Your task to perform on an android device: Go to network settings Image 0: 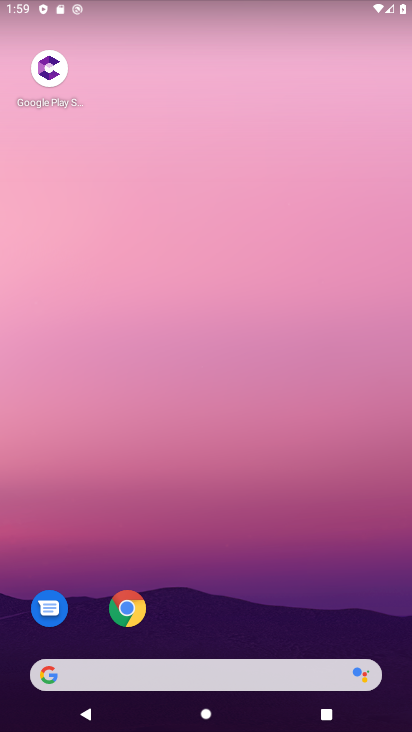
Step 0: drag from (260, 621) to (252, 185)
Your task to perform on an android device: Go to network settings Image 1: 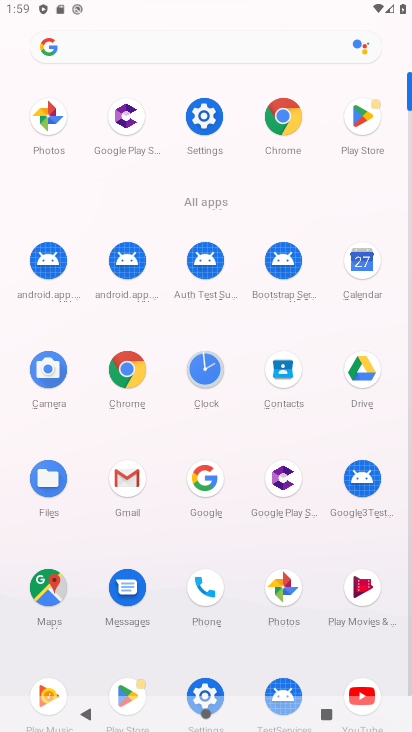
Step 1: click (211, 122)
Your task to perform on an android device: Go to network settings Image 2: 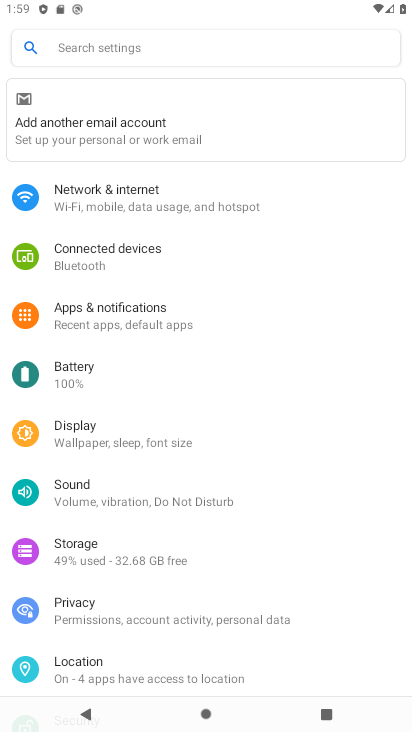
Step 2: click (117, 197)
Your task to perform on an android device: Go to network settings Image 3: 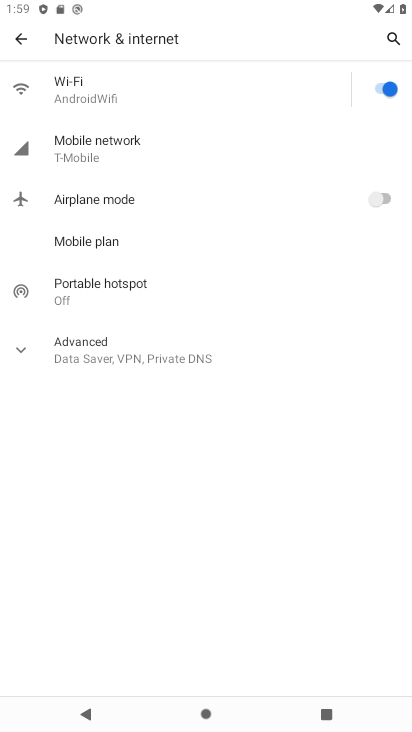
Step 3: task complete